Your task to perform on an android device: turn on bluetooth scan Image 0: 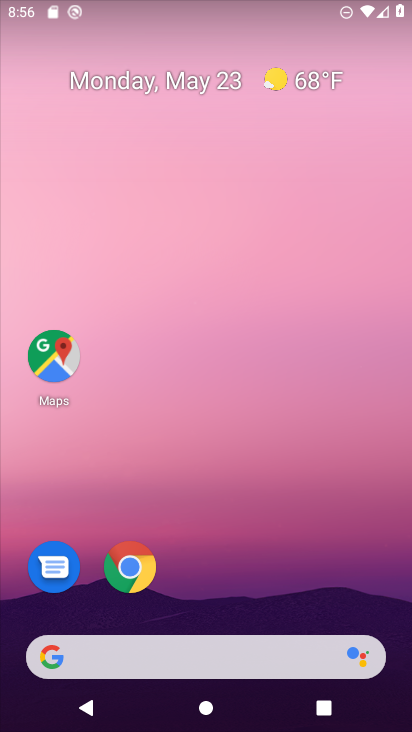
Step 0: drag from (241, 587) to (411, 10)
Your task to perform on an android device: turn on bluetooth scan Image 1: 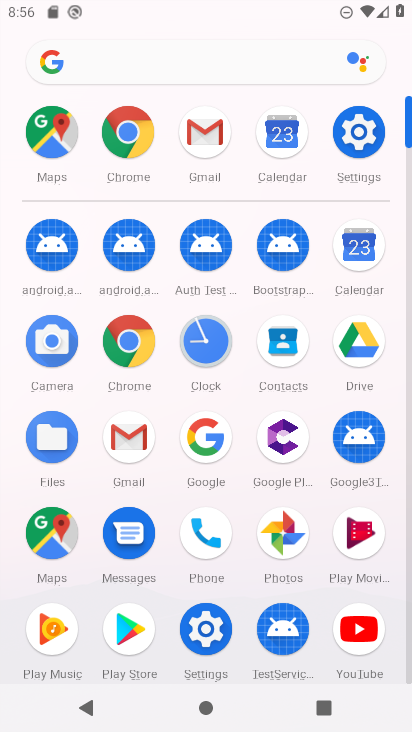
Step 1: click (378, 128)
Your task to perform on an android device: turn on bluetooth scan Image 2: 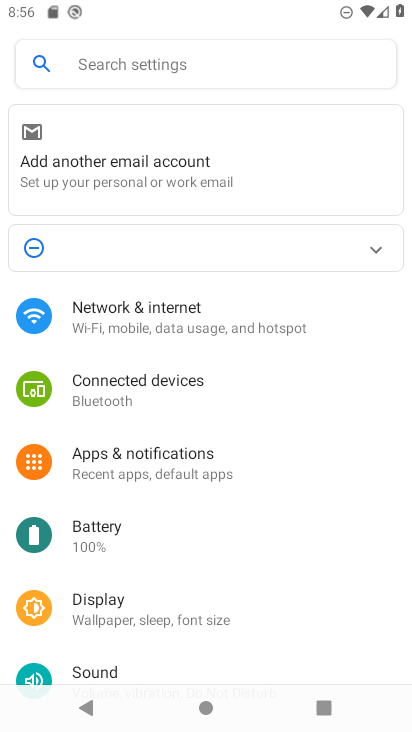
Step 2: drag from (188, 501) to (377, 25)
Your task to perform on an android device: turn on bluetooth scan Image 3: 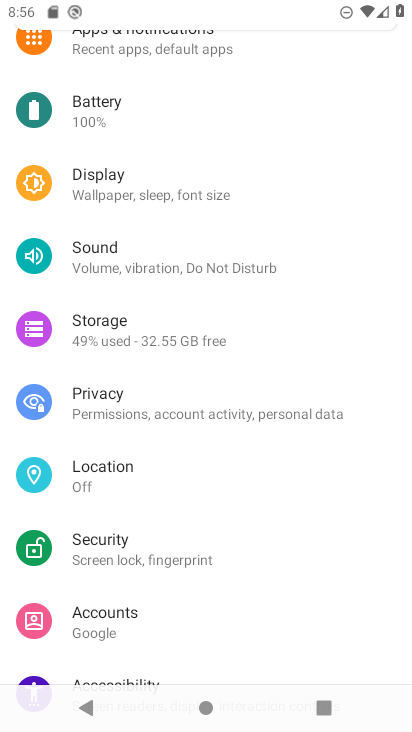
Step 3: click (126, 502)
Your task to perform on an android device: turn on bluetooth scan Image 4: 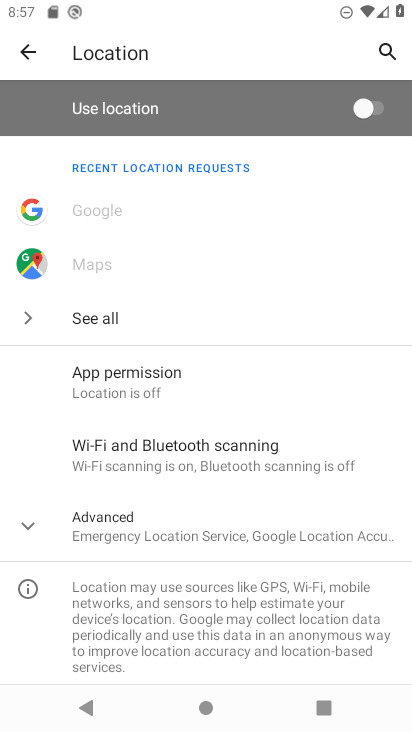
Step 4: click (159, 526)
Your task to perform on an android device: turn on bluetooth scan Image 5: 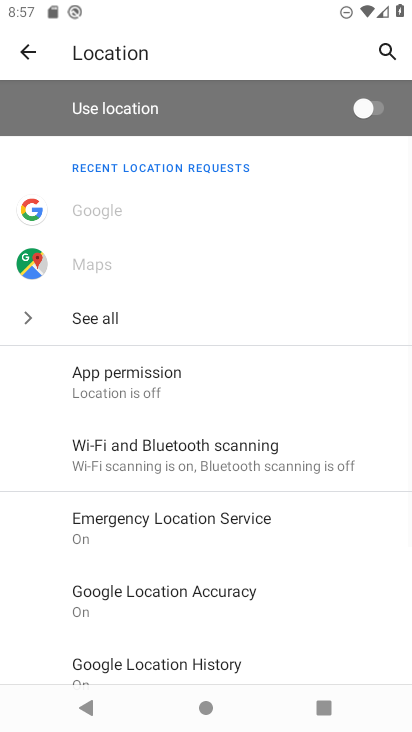
Step 5: drag from (241, 625) to (322, 140)
Your task to perform on an android device: turn on bluetooth scan Image 6: 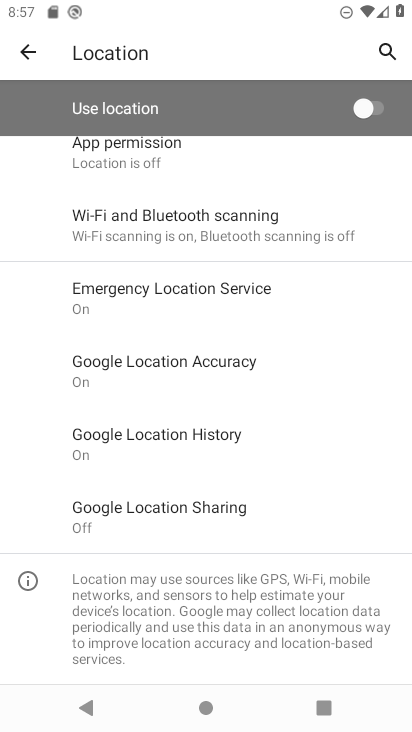
Step 6: drag from (237, 240) to (300, 598)
Your task to perform on an android device: turn on bluetooth scan Image 7: 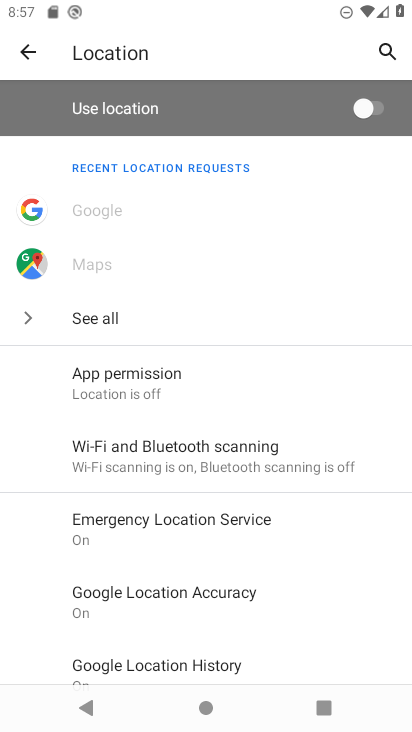
Step 7: click (219, 444)
Your task to perform on an android device: turn on bluetooth scan Image 8: 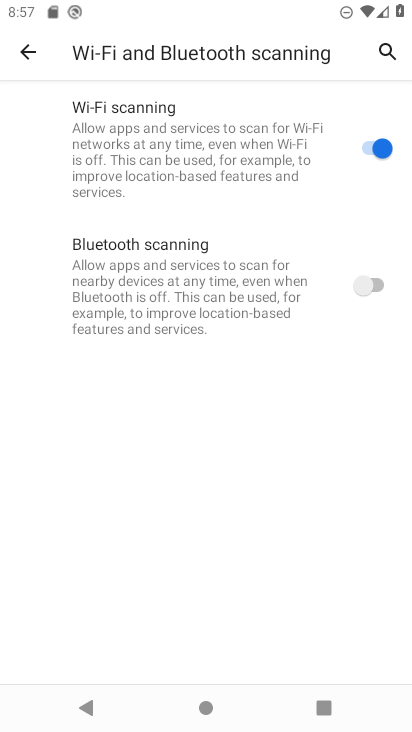
Step 8: click (338, 268)
Your task to perform on an android device: turn on bluetooth scan Image 9: 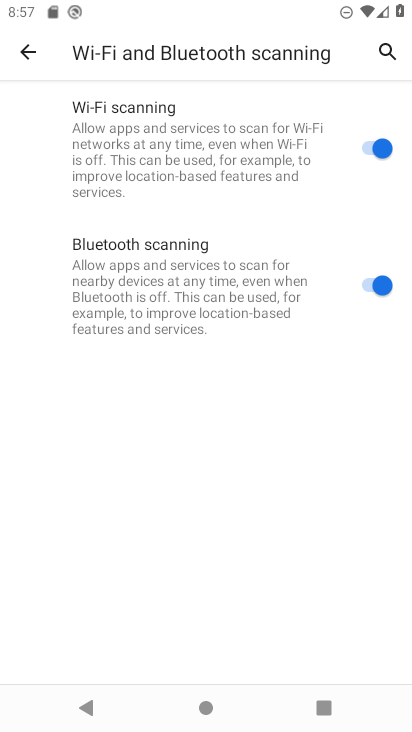
Step 9: task complete